Your task to perform on an android device: Open Google Chrome and open the bookmarks view Image 0: 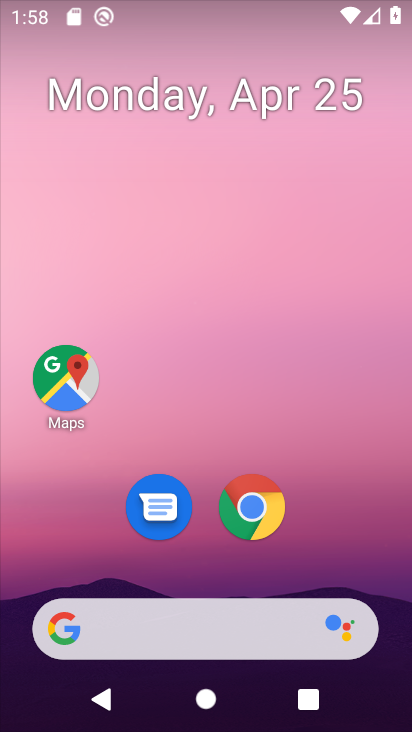
Step 0: press home button
Your task to perform on an android device: Open Google Chrome and open the bookmarks view Image 1: 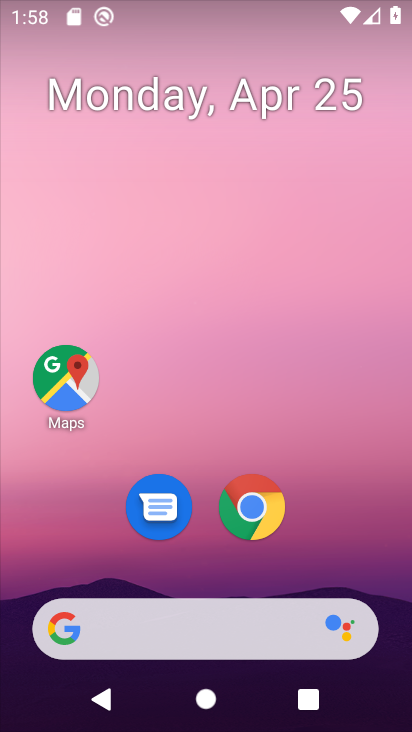
Step 1: drag from (135, 641) to (286, 94)
Your task to perform on an android device: Open Google Chrome and open the bookmarks view Image 2: 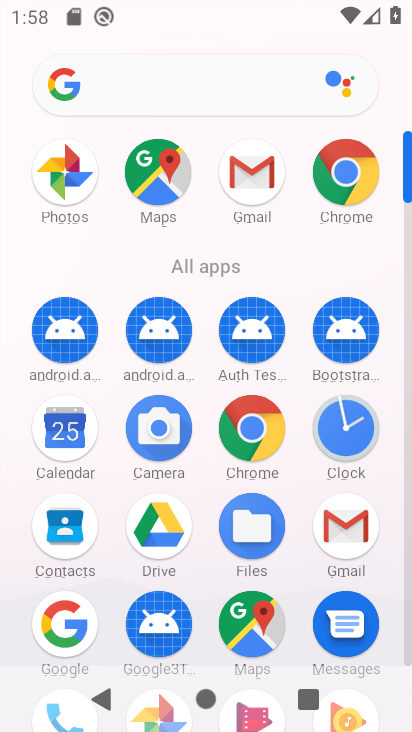
Step 2: click (339, 180)
Your task to perform on an android device: Open Google Chrome and open the bookmarks view Image 3: 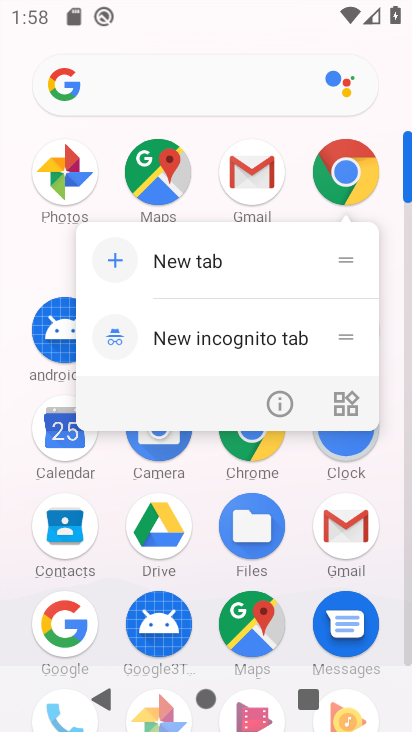
Step 3: click (347, 182)
Your task to perform on an android device: Open Google Chrome and open the bookmarks view Image 4: 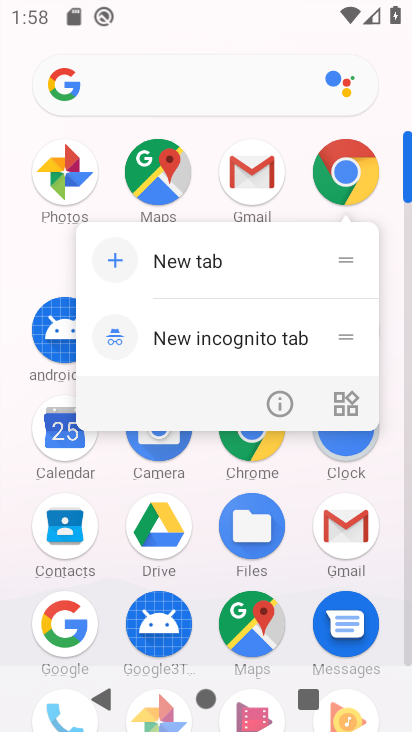
Step 4: click (348, 185)
Your task to perform on an android device: Open Google Chrome and open the bookmarks view Image 5: 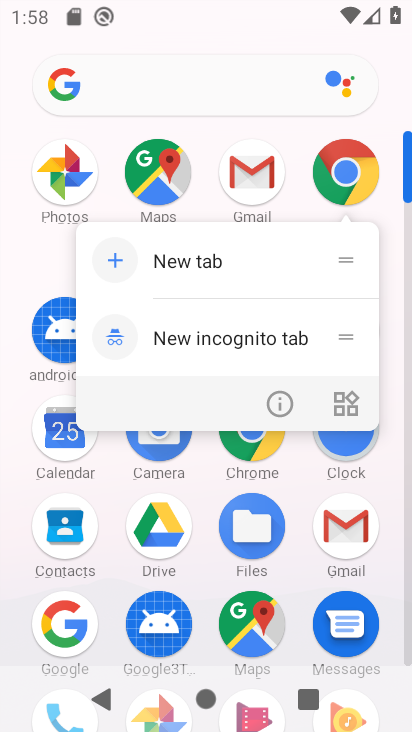
Step 5: click (341, 178)
Your task to perform on an android device: Open Google Chrome and open the bookmarks view Image 6: 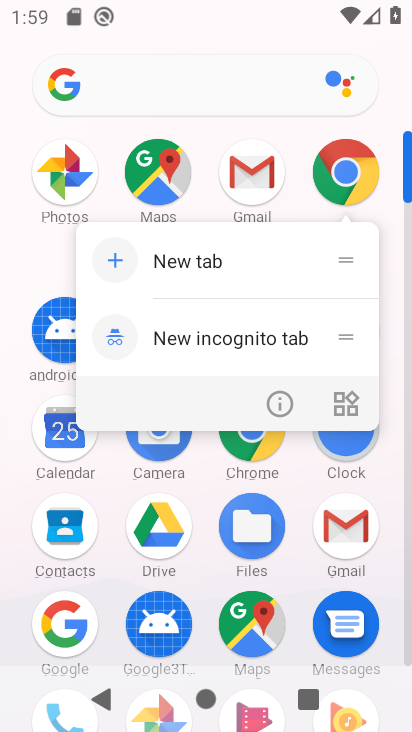
Step 6: click (341, 183)
Your task to perform on an android device: Open Google Chrome and open the bookmarks view Image 7: 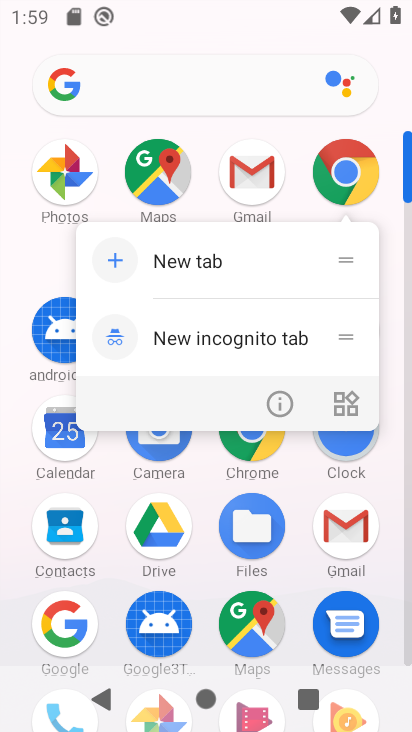
Step 7: click (350, 186)
Your task to perform on an android device: Open Google Chrome and open the bookmarks view Image 8: 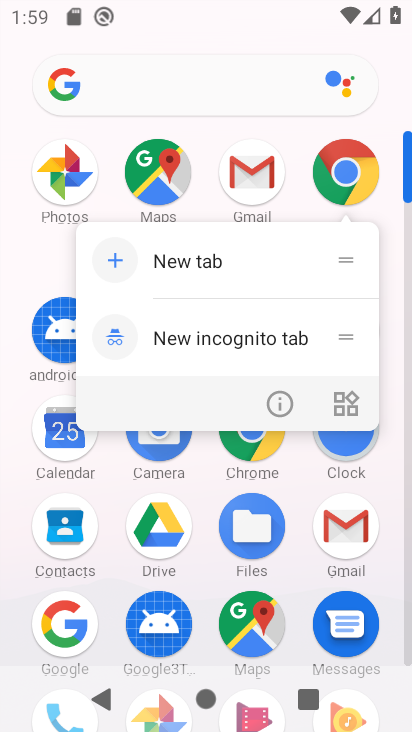
Step 8: click (343, 181)
Your task to perform on an android device: Open Google Chrome and open the bookmarks view Image 9: 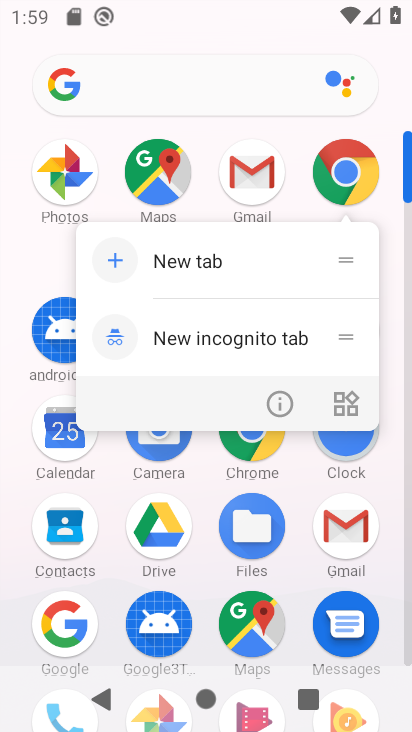
Step 9: click (340, 194)
Your task to perform on an android device: Open Google Chrome and open the bookmarks view Image 10: 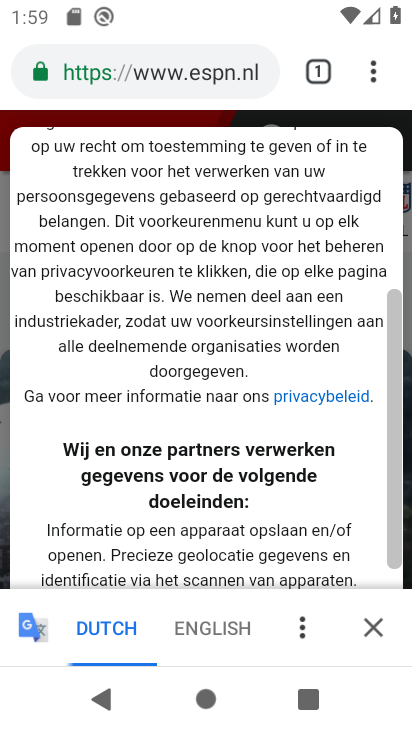
Step 10: click (371, 80)
Your task to perform on an android device: Open Google Chrome and open the bookmarks view Image 11: 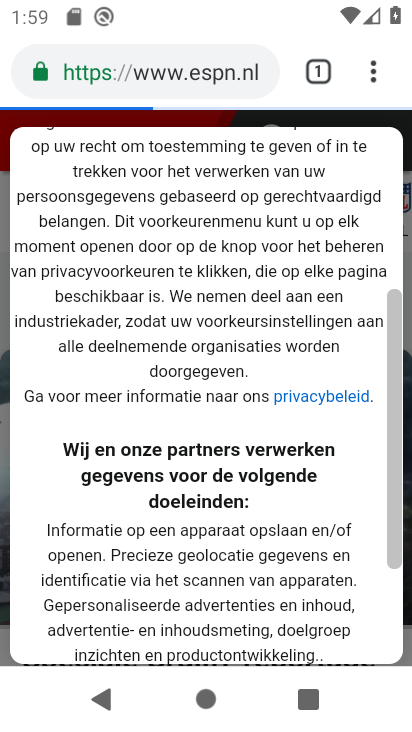
Step 11: click (364, 83)
Your task to perform on an android device: Open Google Chrome and open the bookmarks view Image 12: 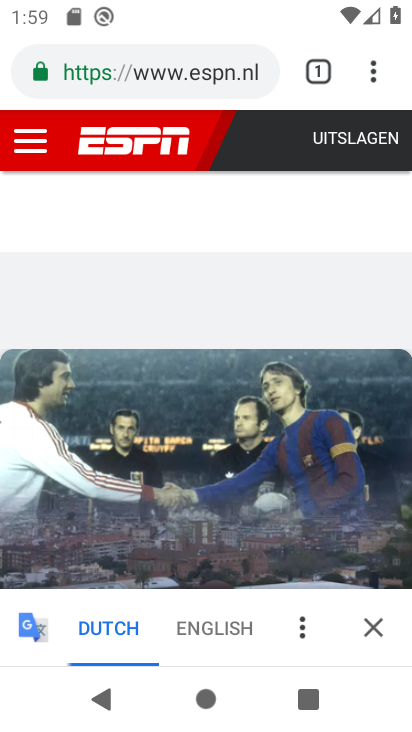
Step 12: click (369, 87)
Your task to perform on an android device: Open Google Chrome and open the bookmarks view Image 13: 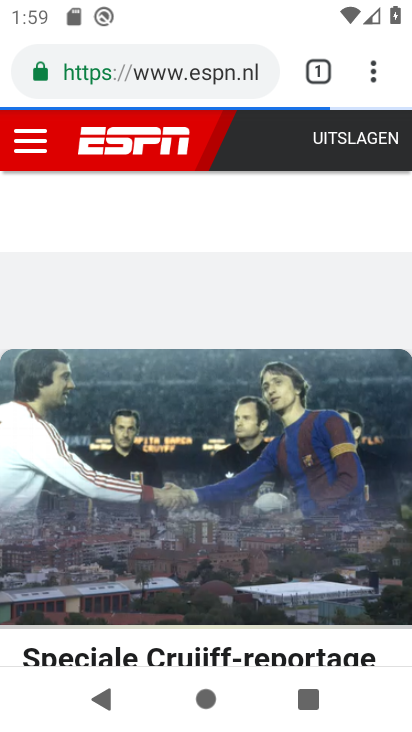
Step 13: click (361, 84)
Your task to perform on an android device: Open Google Chrome and open the bookmarks view Image 14: 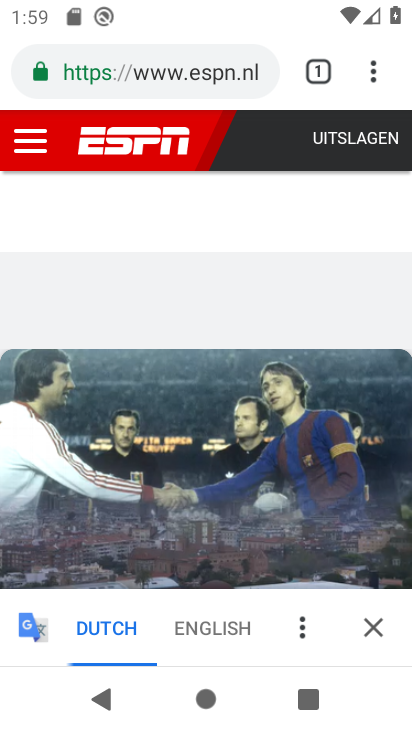
Step 14: drag from (371, 76) to (115, 272)
Your task to perform on an android device: Open Google Chrome and open the bookmarks view Image 15: 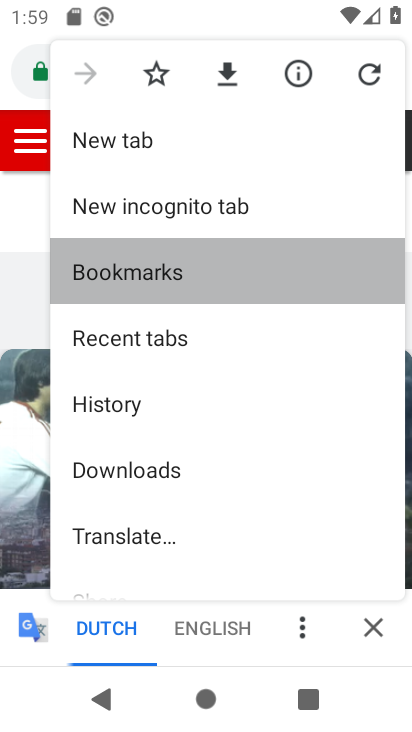
Step 15: click (115, 271)
Your task to perform on an android device: Open Google Chrome and open the bookmarks view Image 16: 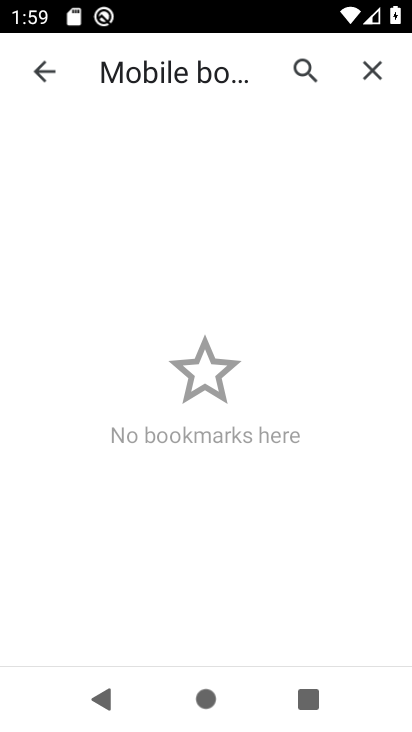
Step 16: task complete